Your task to perform on an android device: Open Chrome and go to settings Image 0: 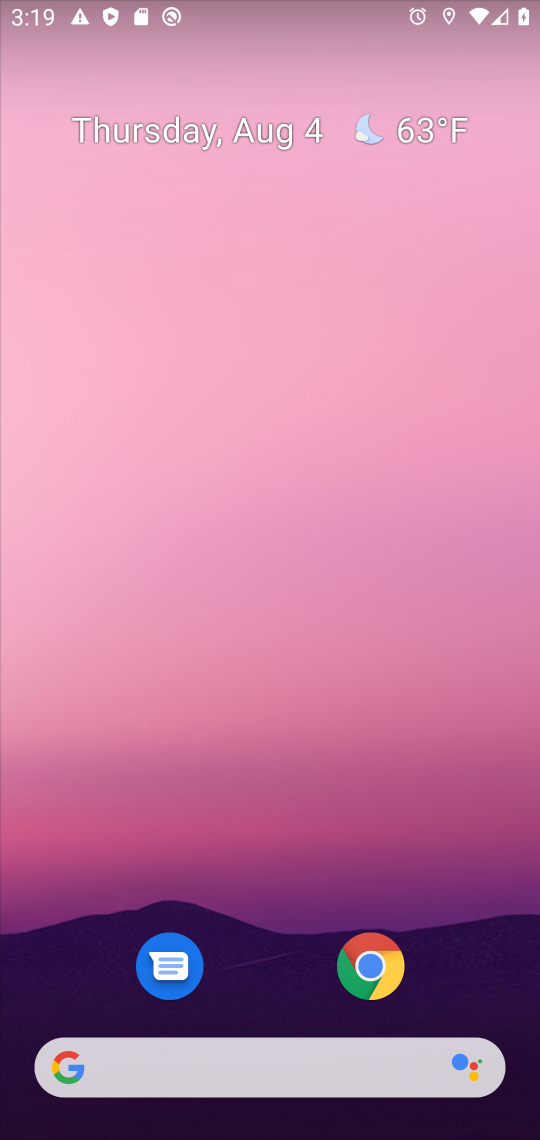
Step 0: click (387, 976)
Your task to perform on an android device: Open Chrome and go to settings Image 1: 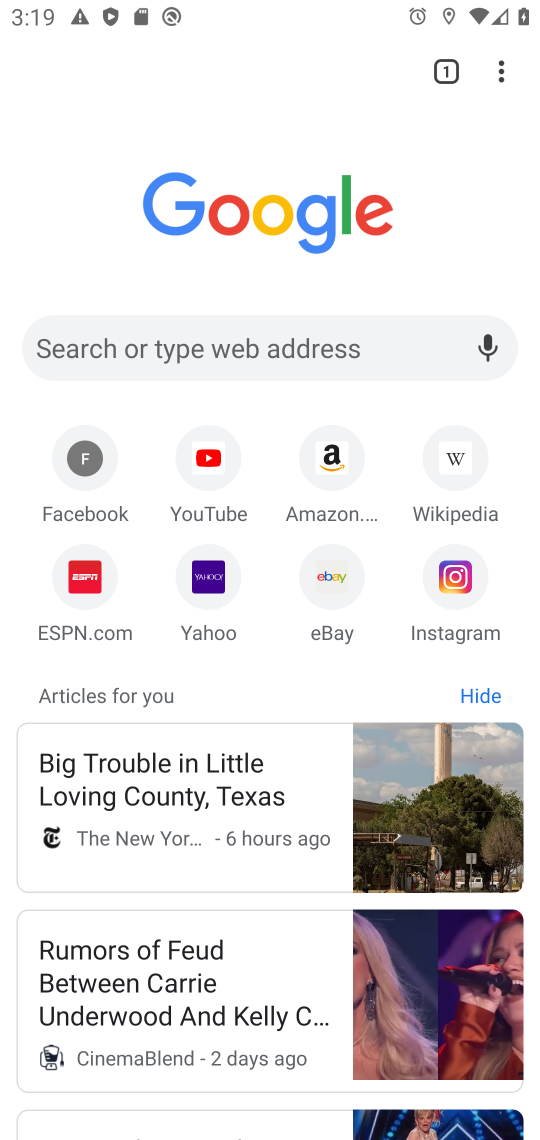
Step 1: task complete